Your task to perform on an android device: Open Youtube and go to "Your channel" Image 0: 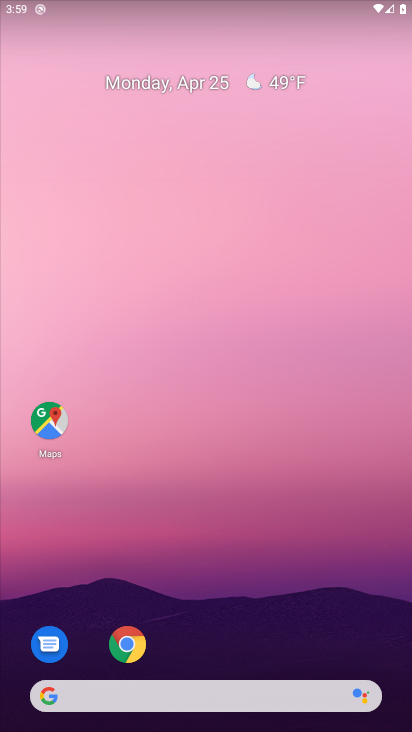
Step 0: drag from (287, 614) to (185, 66)
Your task to perform on an android device: Open Youtube and go to "Your channel" Image 1: 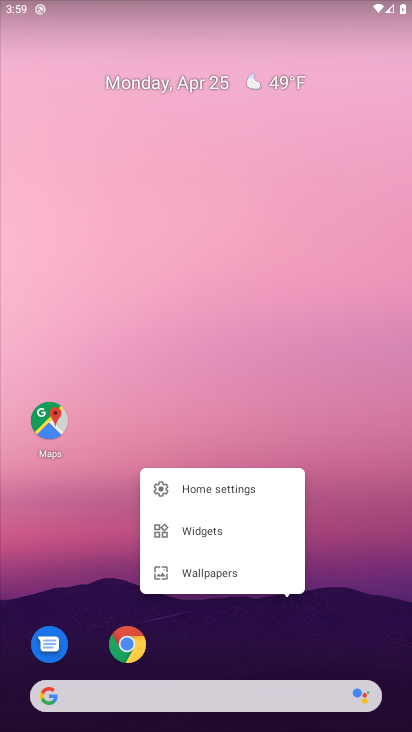
Step 1: click (335, 609)
Your task to perform on an android device: Open Youtube and go to "Your channel" Image 2: 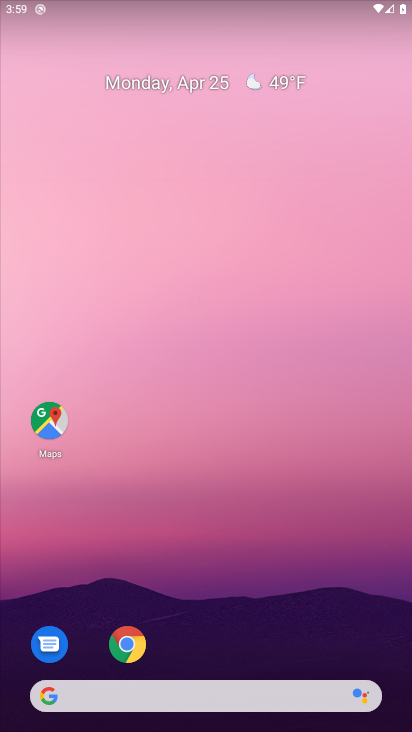
Step 2: drag from (335, 609) to (305, 243)
Your task to perform on an android device: Open Youtube and go to "Your channel" Image 3: 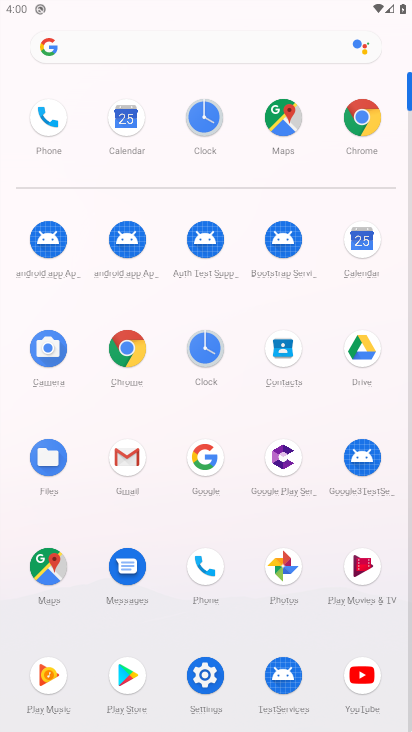
Step 3: click (351, 667)
Your task to perform on an android device: Open Youtube and go to "Your channel" Image 4: 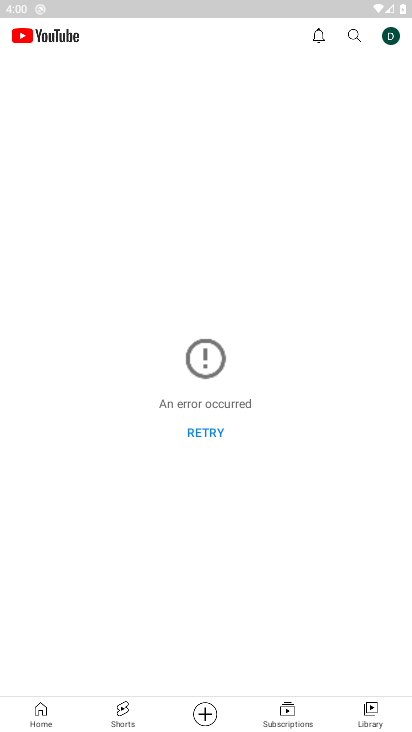
Step 4: click (361, 719)
Your task to perform on an android device: Open Youtube and go to "Your channel" Image 5: 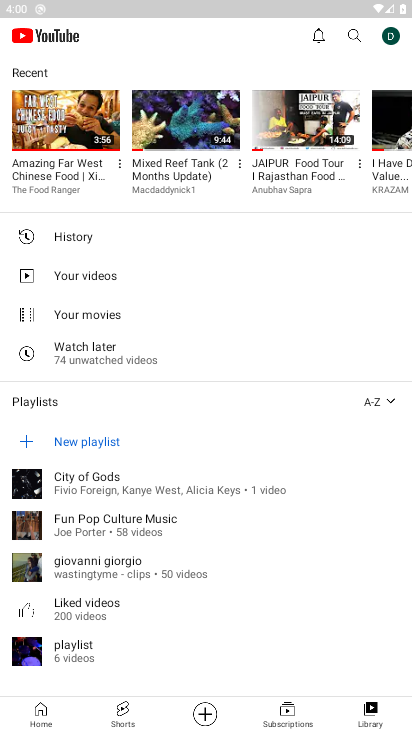
Step 5: click (90, 269)
Your task to perform on an android device: Open Youtube and go to "Your channel" Image 6: 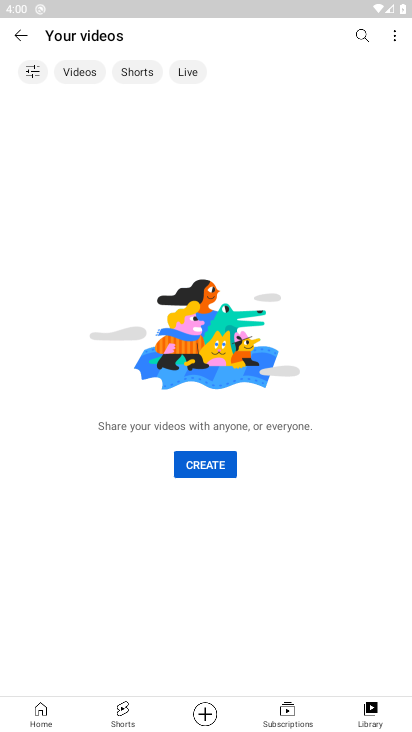
Step 6: task complete